Your task to perform on an android device: open app "Messenger Lite" (install if not already installed) Image 0: 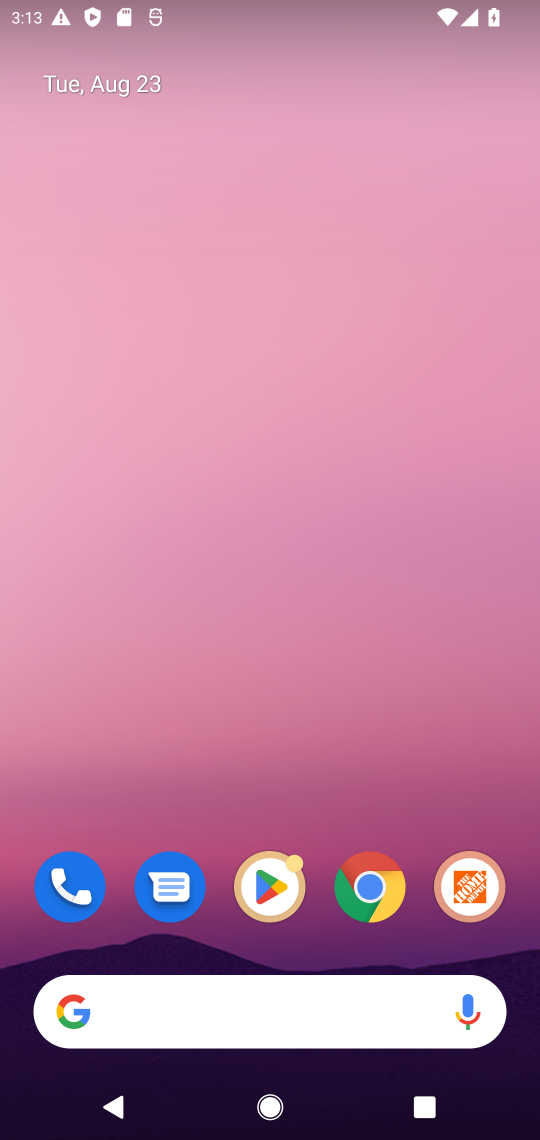
Step 0: click (255, 890)
Your task to perform on an android device: open app "Messenger Lite" (install if not already installed) Image 1: 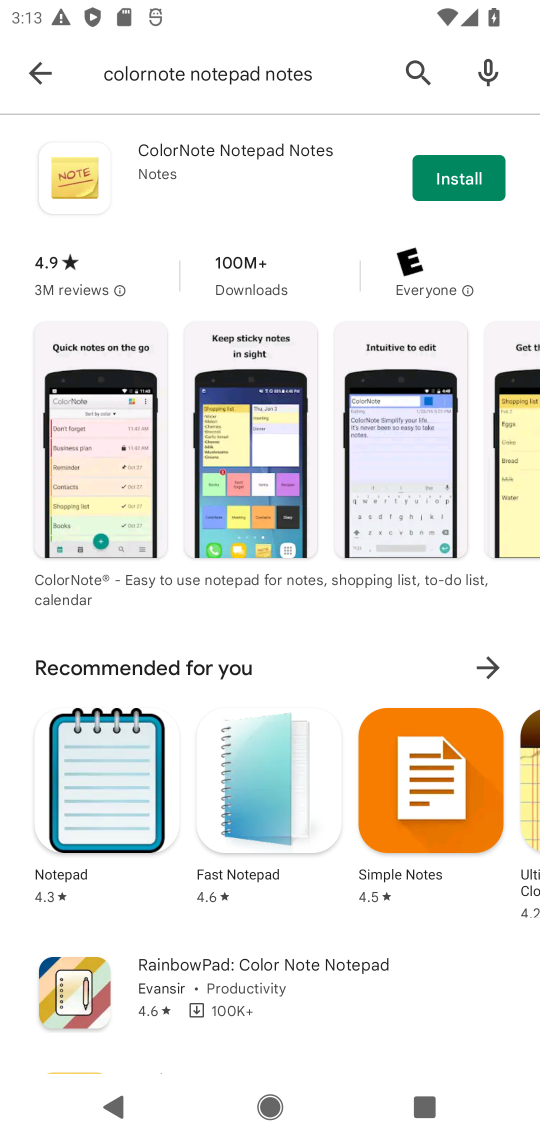
Step 1: click (39, 73)
Your task to perform on an android device: open app "Messenger Lite" (install if not already installed) Image 2: 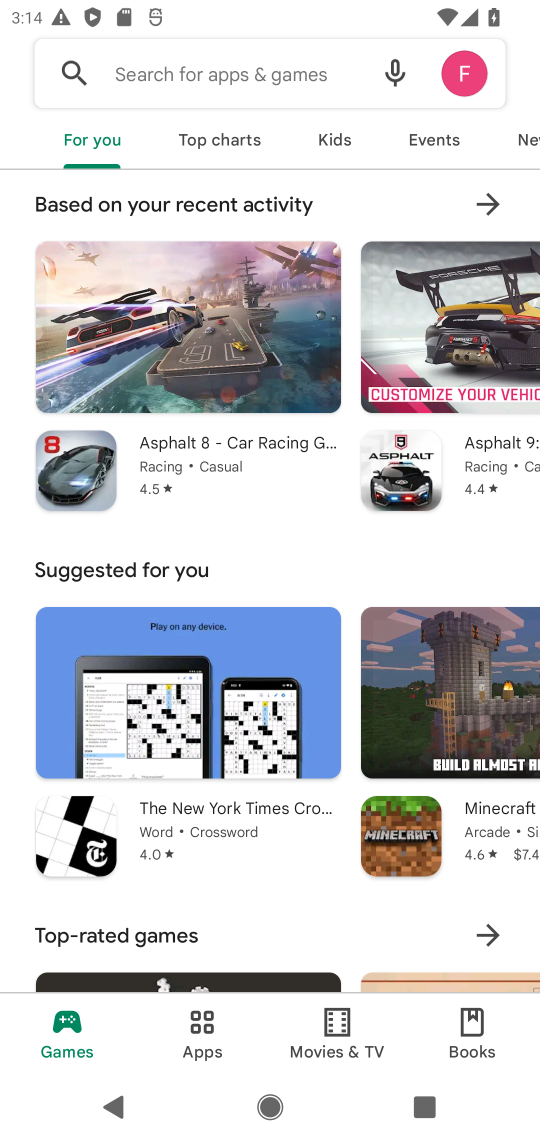
Step 2: click (242, 61)
Your task to perform on an android device: open app "Messenger Lite" (install if not already installed) Image 3: 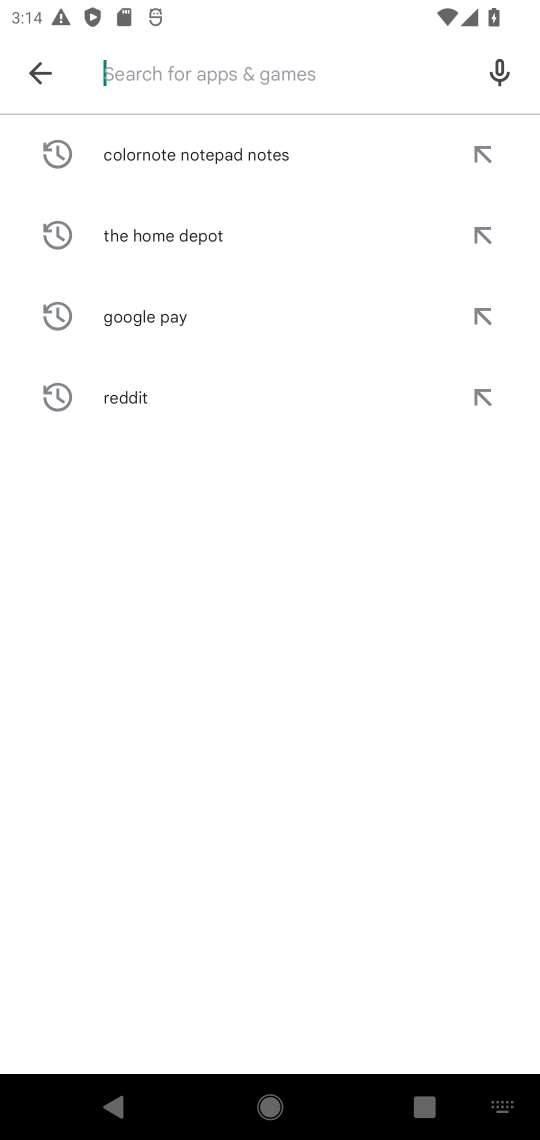
Step 3: type "Messenger Lite"
Your task to perform on an android device: open app "Messenger Lite" (install if not already installed) Image 4: 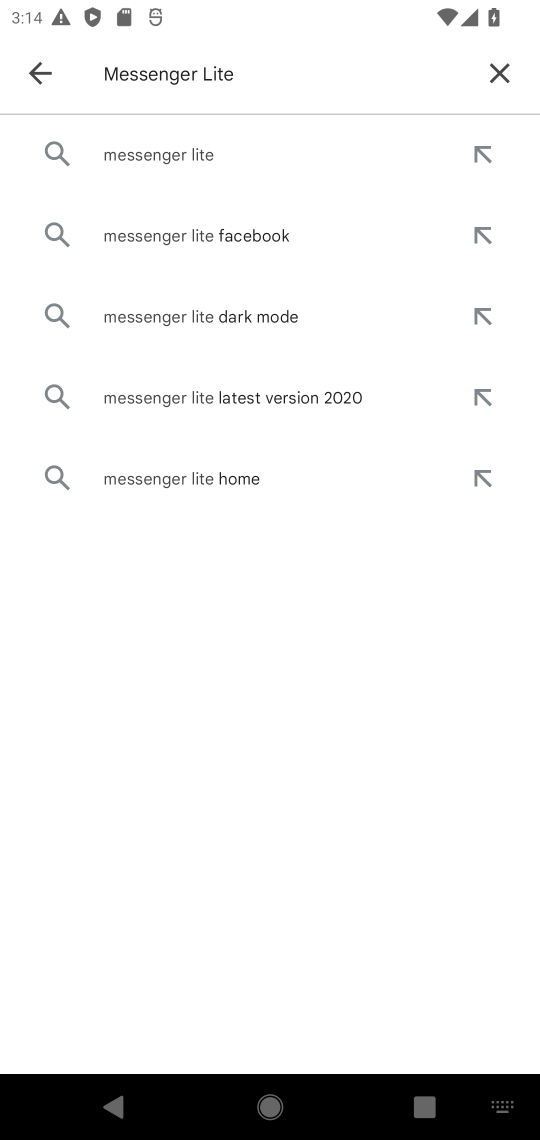
Step 4: click (153, 158)
Your task to perform on an android device: open app "Messenger Lite" (install if not already installed) Image 5: 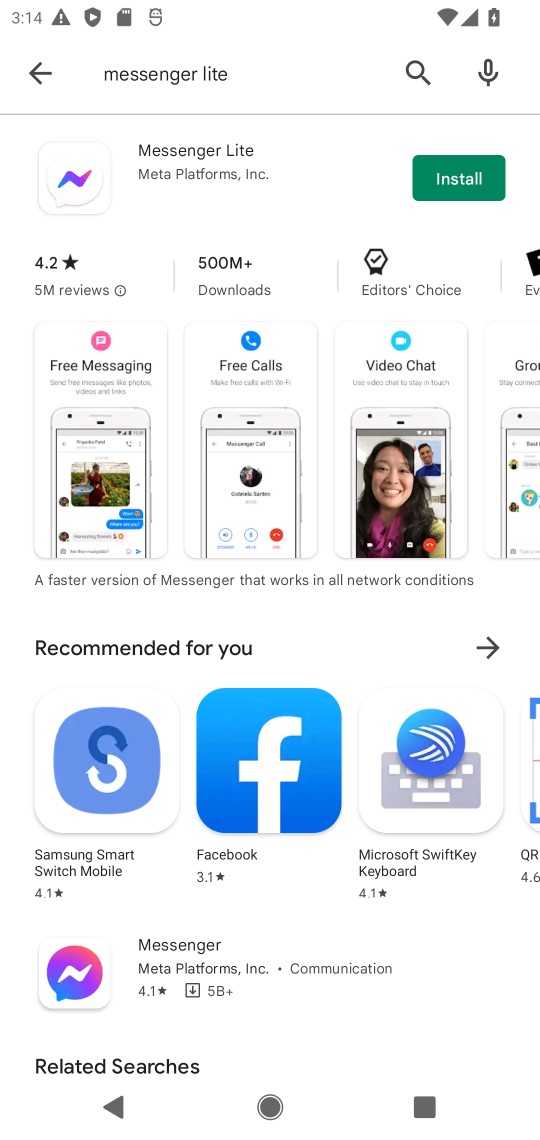
Step 5: click (458, 190)
Your task to perform on an android device: open app "Messenger Lite" (install if not already installed) Image 6: 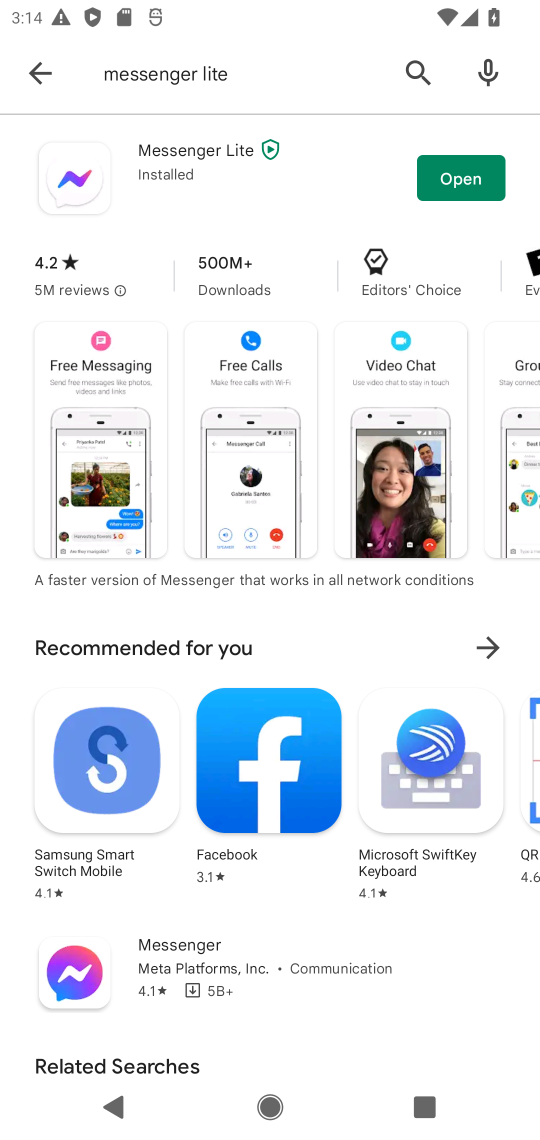
Step 6: click (458, 190)
Your task to perform on an android device: open app "Messenger Lite" (install if not already installed) Image 7: 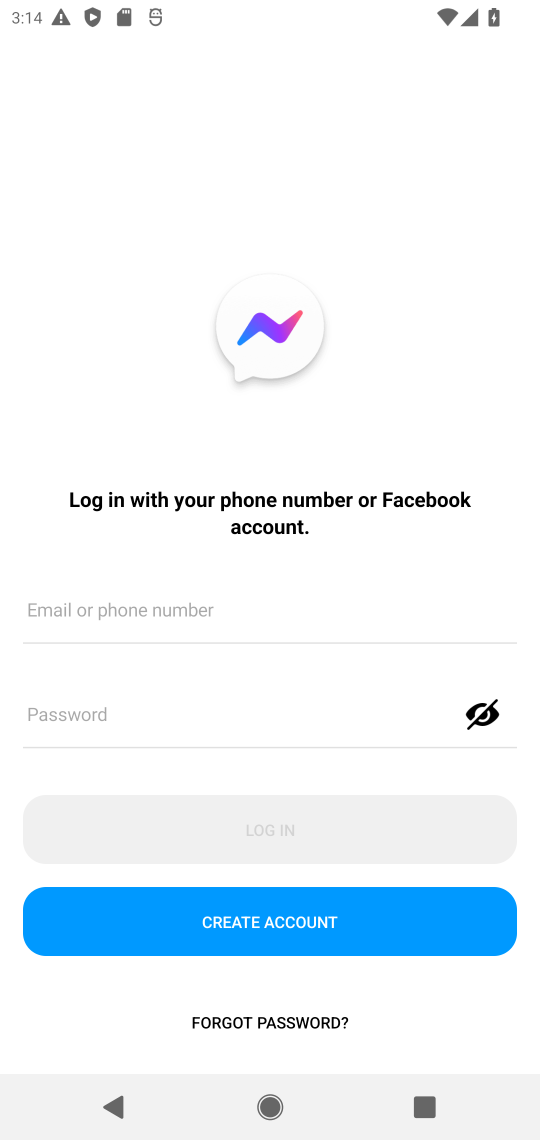
Step 7: task complete